Your task to perform on an android device: turn off priority inbox in the gmail app Image 0: 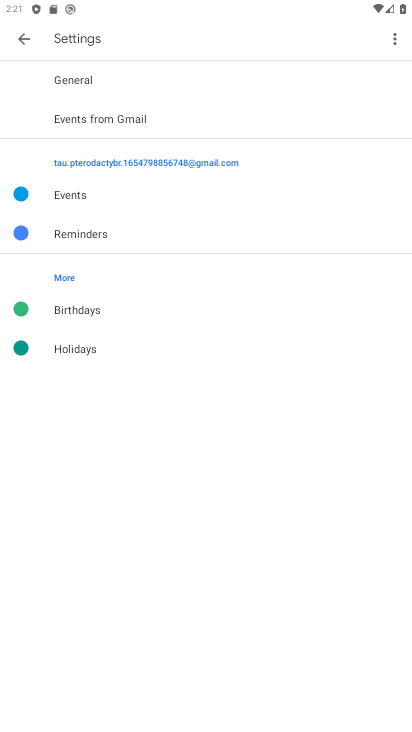
Step 0: press home button
Your task to perform on an android device: turn off priority inbox in the gmail app Image 1: 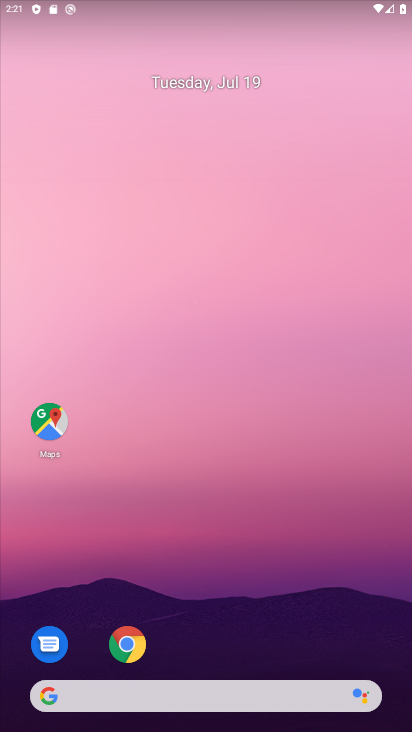
Step 1: drag from (219, 636) to (210, 0)
Your task to perform on an android device: turn off priority inbox in the gmail app Image 2: 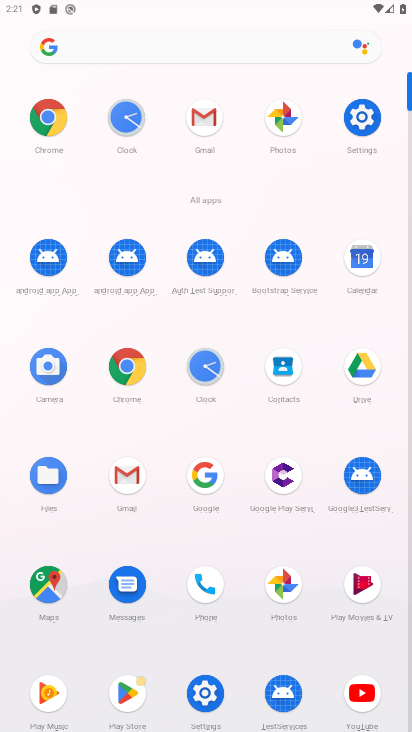
Step 2: click (197, 113)
Your task to perform on an android device: turn off priority inbox in the gmail app Image 3: 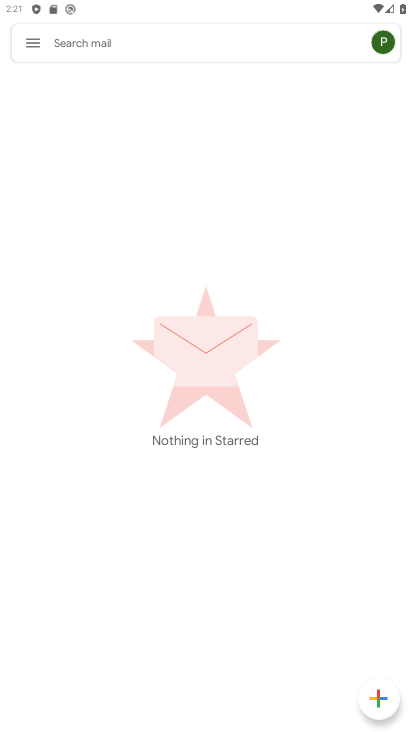
Step 3: click (29, 45)
Your task to perform on an android device: turn off priority inbox in the gmail app Image 4: 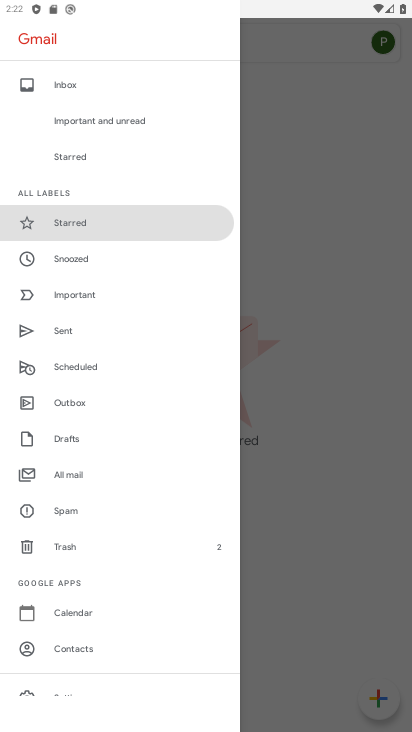
Step 4: click (118, 687)
Your task to perform on an android device: turn off priority inbox in the gmail app Image 5: 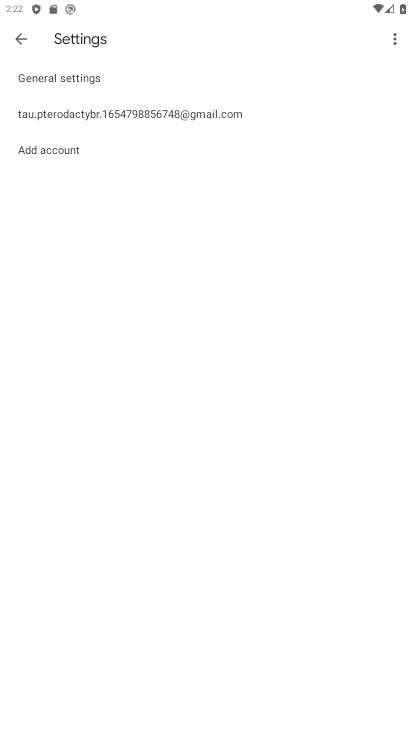
Step 5: click (112, 98)
Your task to perform on an android device: turn off priority inbox in the gmail app Image 6: 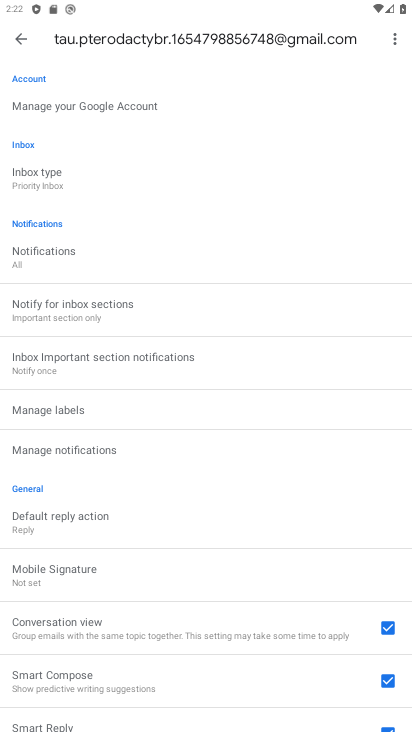
Step 6: click (45, 185)
Your task to perform on an android device: turn off priority inbox in the gmail app Image 7: 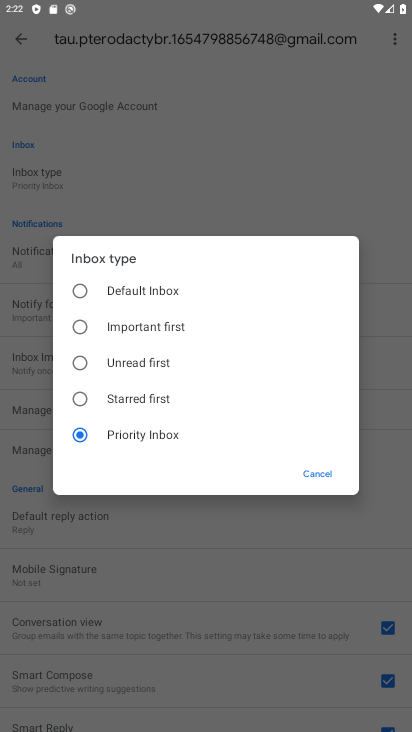
Step 7: click (130, 296)
Your task to perform on an android device: turn off priority inbox in the gmail app Image 8: 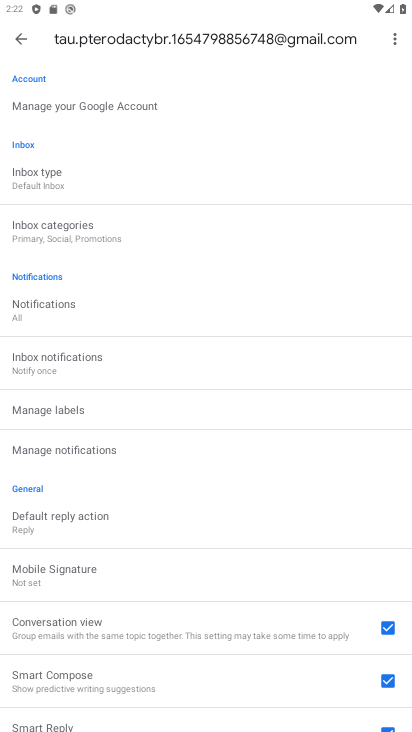
Step 8: task complete